Your task to perform on an android device: Open Google Chrome Image 0: 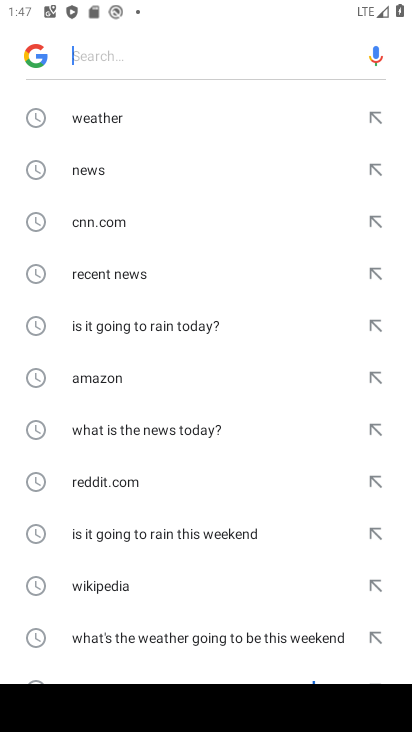
Step 0: press home button
Your task to perform on an android device: Open Google Chrome Image 1: 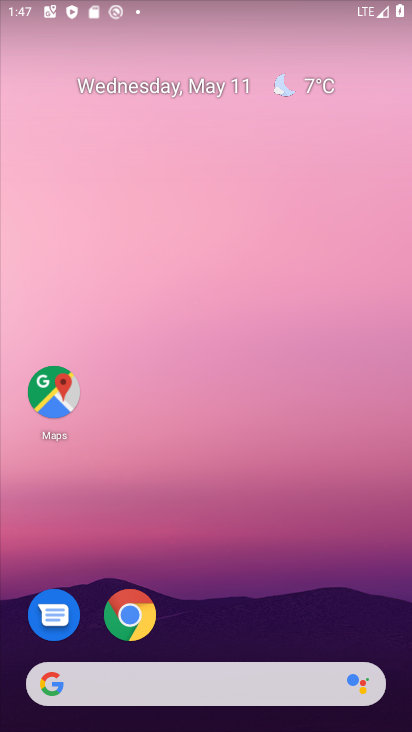
Step 1: click (131, 609)
Your task to perform on an android device: Open Google Chrome Image 2: 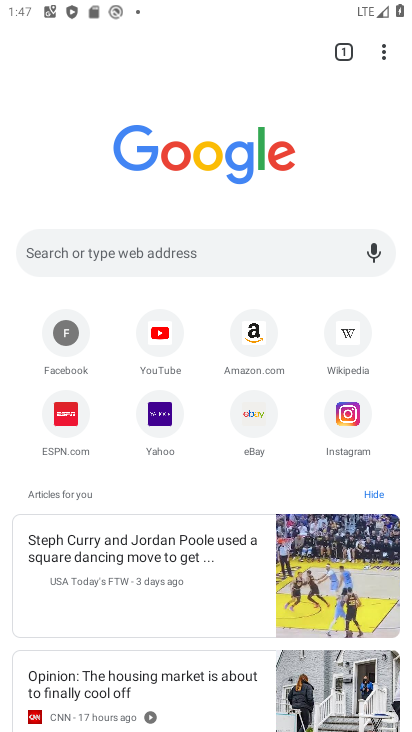
Step 2: task complete